Your task to perform on an android device: turn on wifi Image 0: 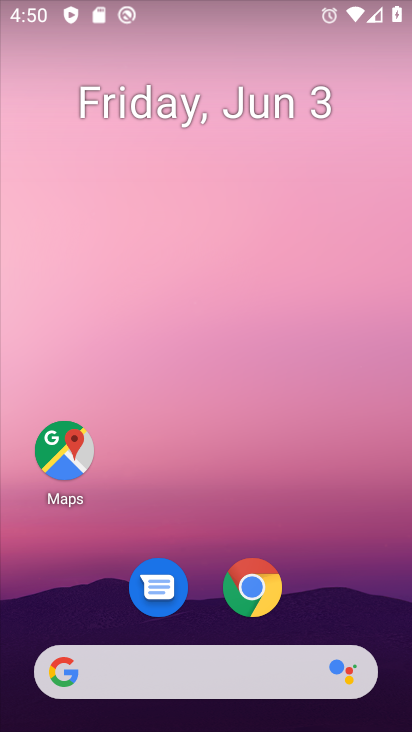
Step 0: drag from (168, 13) to (138, 725)
Your task to perform on an android device: turn on wifi Image 1: 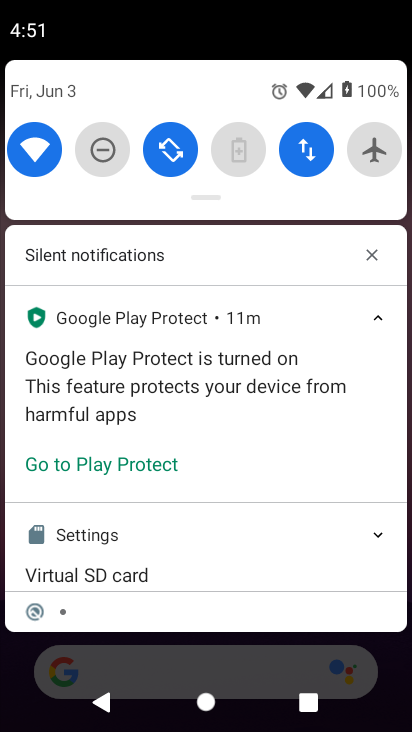
Step 1: task complete